Your task to perform on an android device: Show me recent news Image 0: 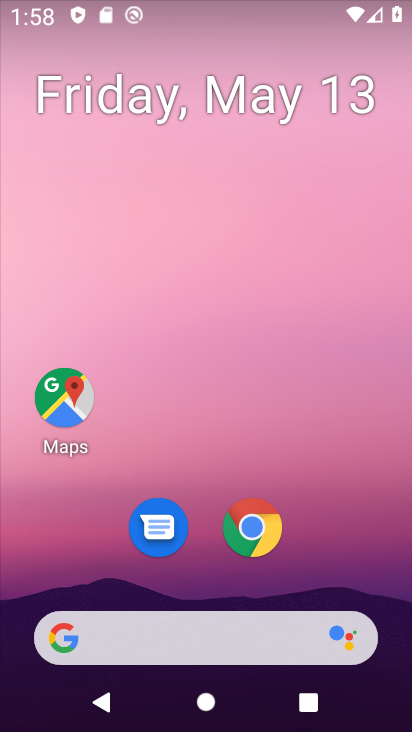
Step 0: click (187, 642)
Your task to perform on an android device: Show me recent news Image 1: 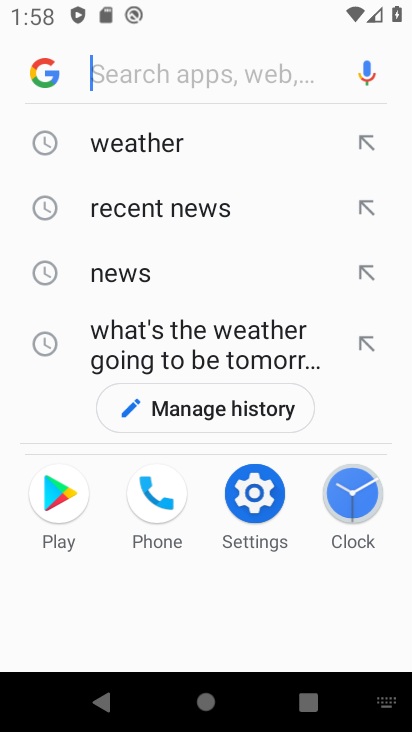
Step 1: click (168, 212)
Your task to perform on an android device: Show me recent news Image 2: 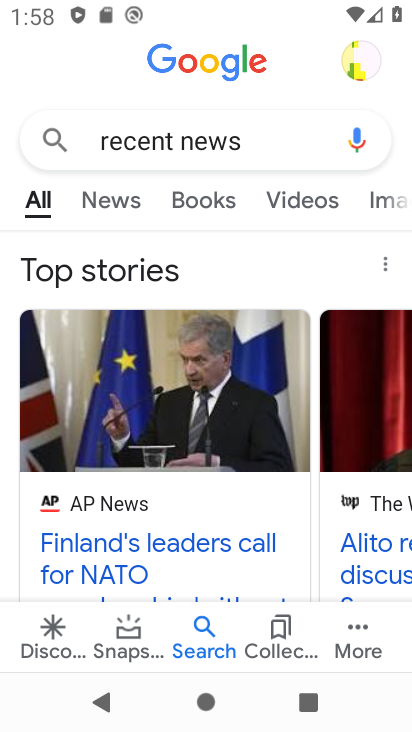
Step 2: task complete